Your task to perform on an android device: Show the shopping cart on ebay.com. Add "apple airpods pro" to the cart on ebay.com Image 0: 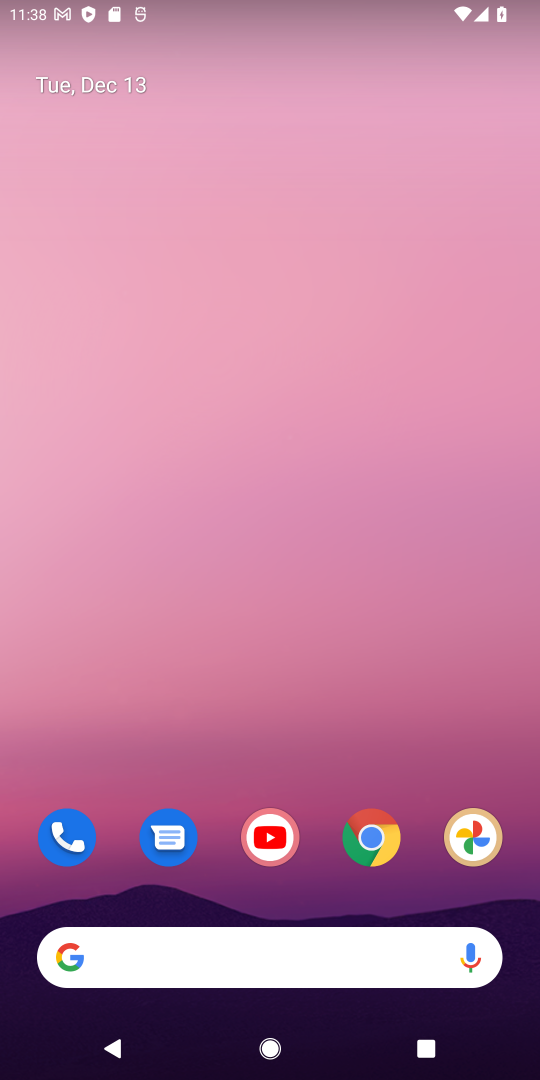
Step 0: click (381, 866)
Your task to perform on an android device: Show the shopping cart on ebay.com. Add "apple airpods pro" to the cart on ebay.com Image 1: 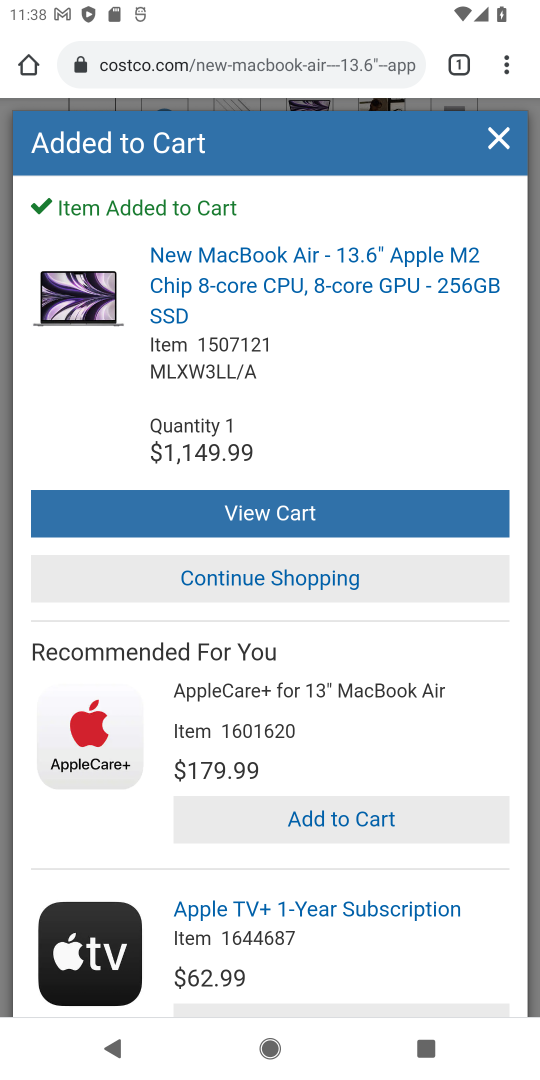
Step 1: click (195, 68)
Your task to perform on an android device: Show the shopping cart on ebay.com. Add "apple airpods pro" to the cart on ebay.com Image 2: 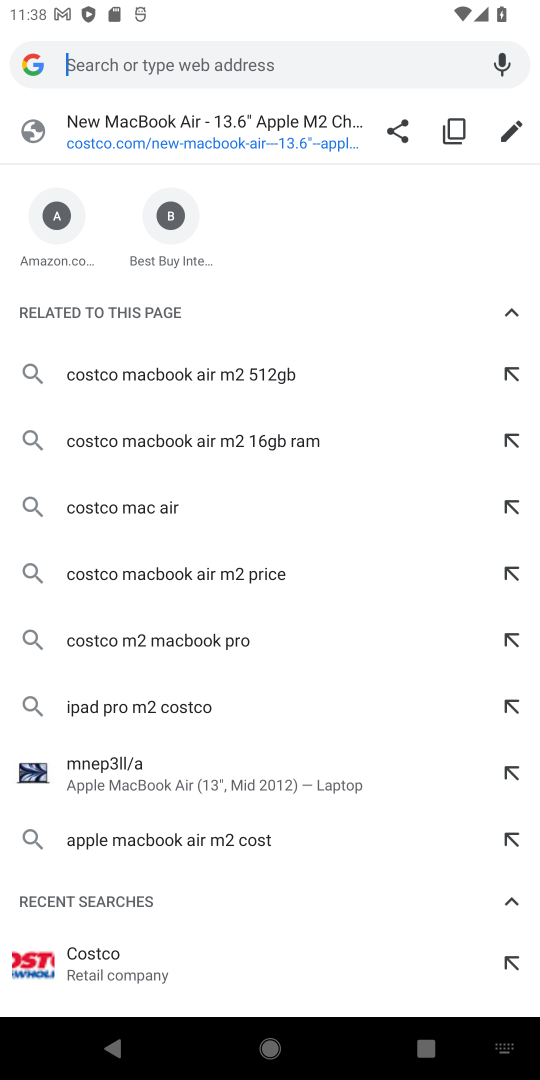
Step 2: type "apple airpod"
Your task to perform on an android device: Show the shopping cart on ebay.com. Add "apple airpods pro" to the cart on ebay.com Image 3: 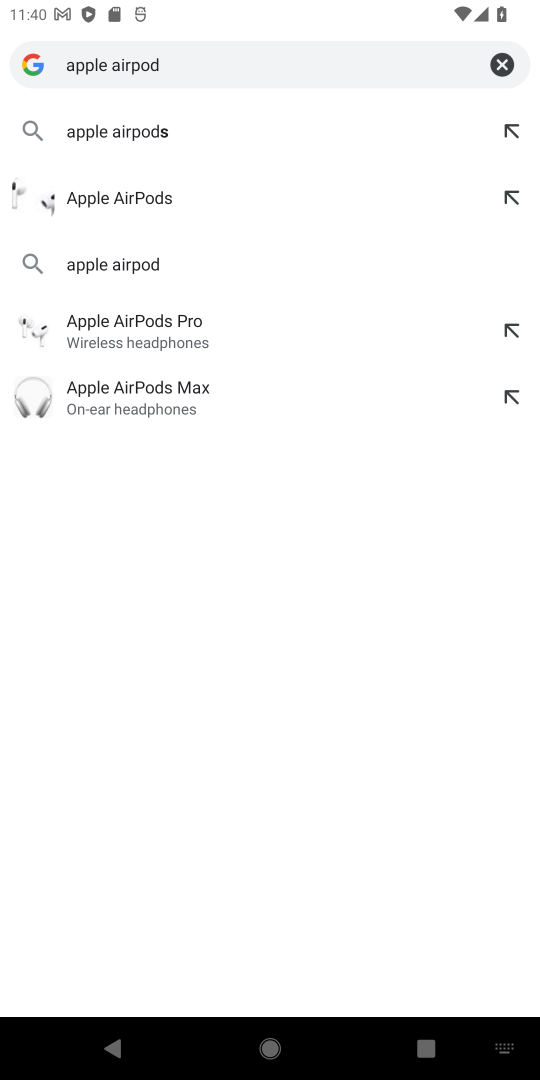
Step 3: click (167, 125)
Your task to perform on an android device: Show the shopping cart on ebay.com. Add "apple airpods pro" to the cart on ebay.com Image 4: 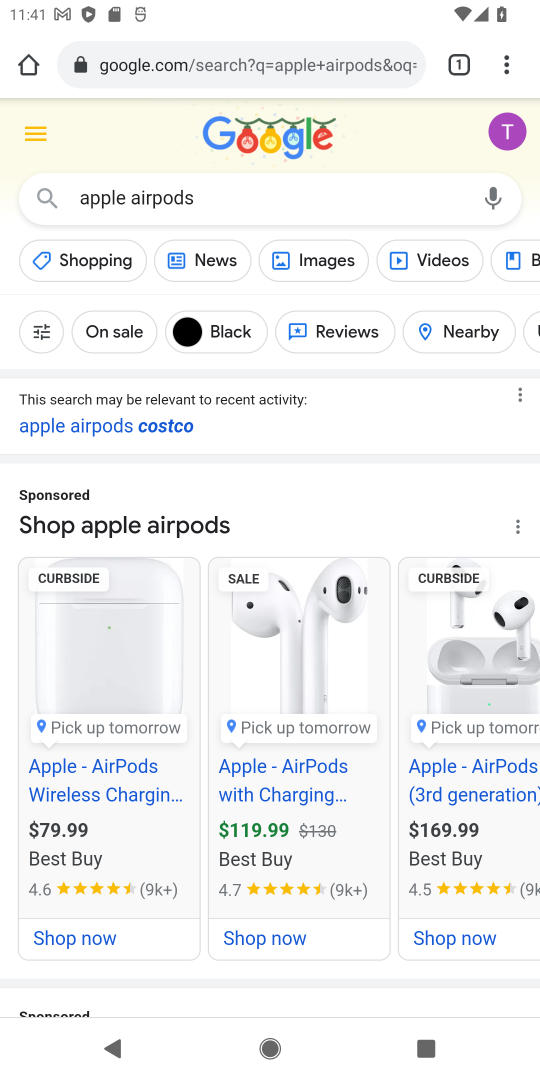
Step 4: drag from (417, 795) to (12, 765)
Your task to perform on an android device: Show the shopping cart on ebay.com. Add "apple airpods pro" to the cart on ebay.com Image 5: 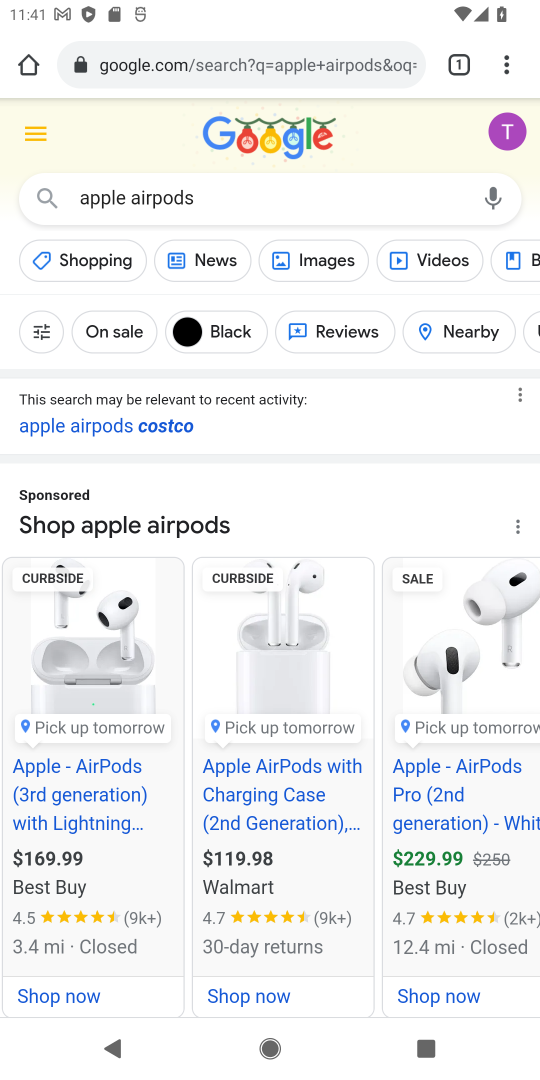
Step 5: drag from (383, 807) to (0, 804)
Your task to perform on an android device: Show the shopping cart on ebay.com. Add "apple airpods pro" to the cart on ebay.com Image 6: 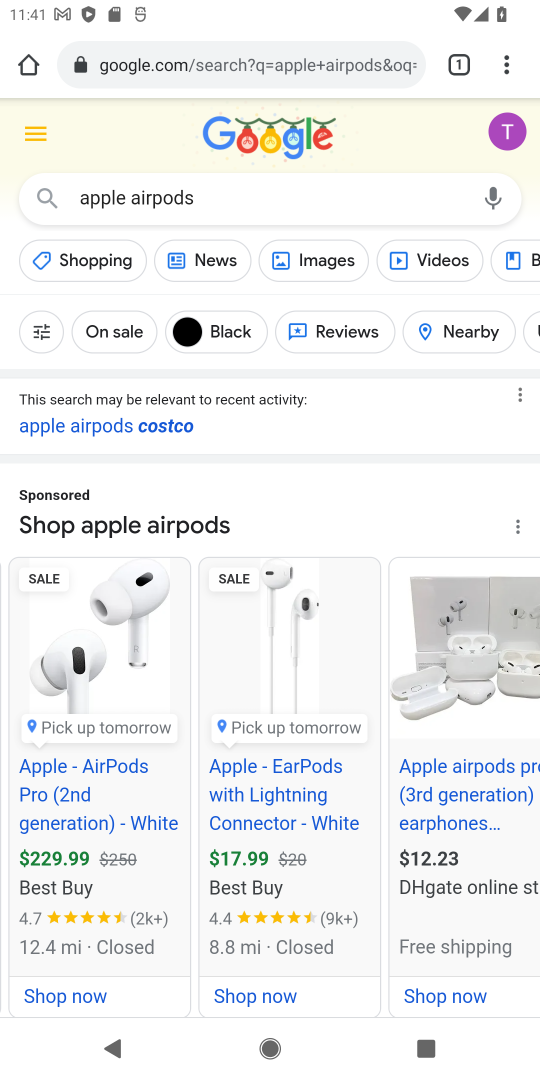
Step 6: drag from (409, 825) to (7, 886)
Your task to perform on an android device: Show the shopping cart on ebay.com. Add "apple airpods pro" to the cart on ebay.com Image 7: 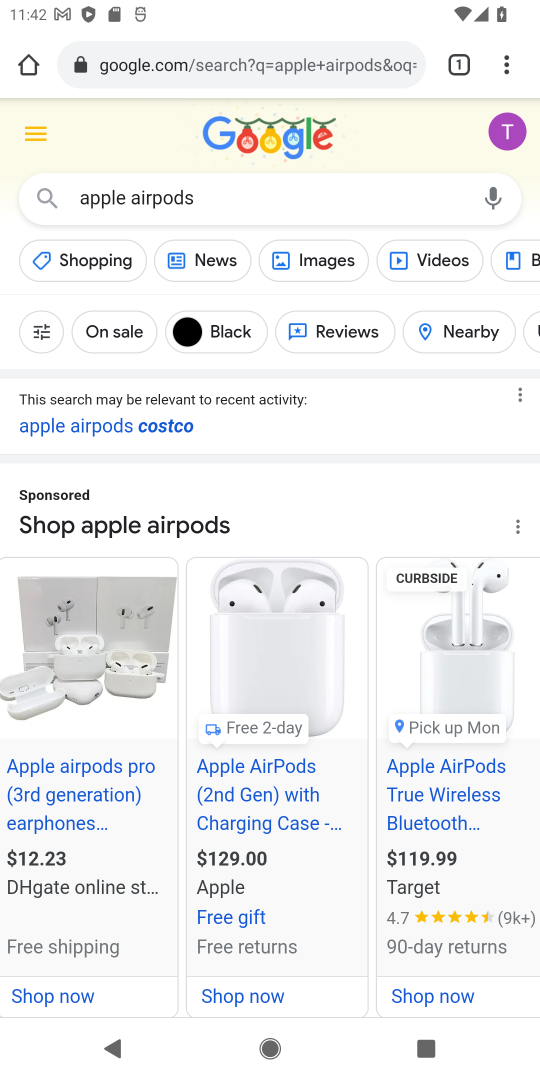
Step 7: drag from (433, 855) to (11, 908)
Your task to perform on an android device: Show the shopping cart on ebay.com. Add "apple airpods pro" to the cart on ebay.com Image 8: 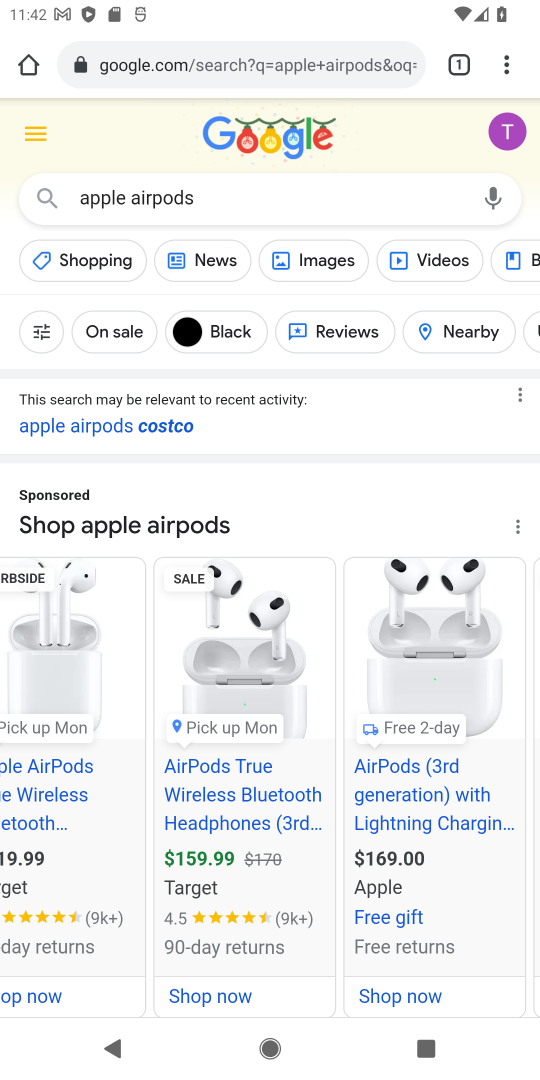
Step 8: drag from (463, 869) to (110, 892)
Your task to perform on an android device: Show the shopping cart on ebay.com. Add "apple airpods pro" to the cart on ebay.com Image 9: 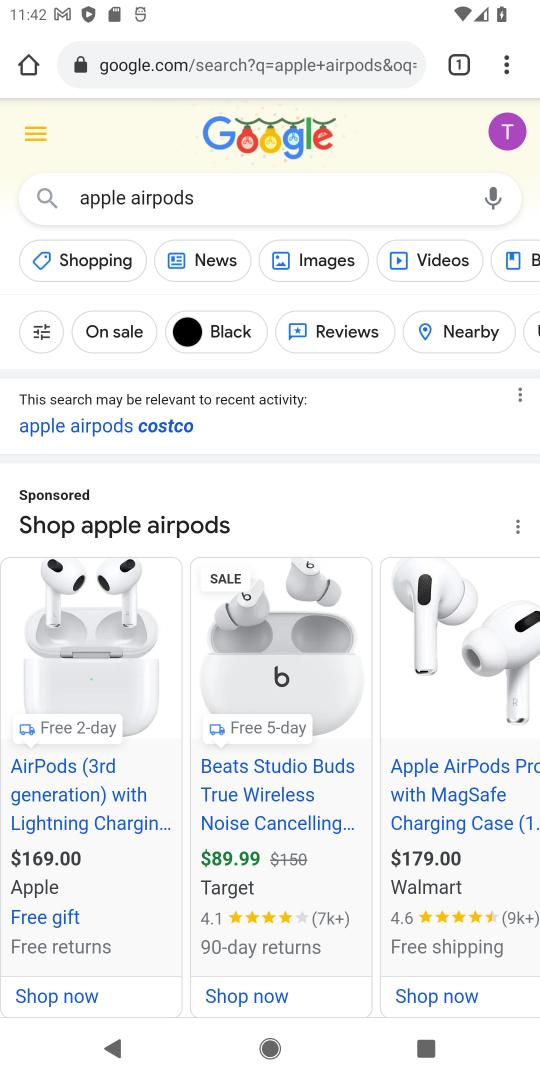
Step 9: drag from (430, 818) to (0, 811)
Your task to perform on an android device: Show the shopping cart on ebay.com. Add "apple airpods pro" to the cart on ebay.com Image 10: 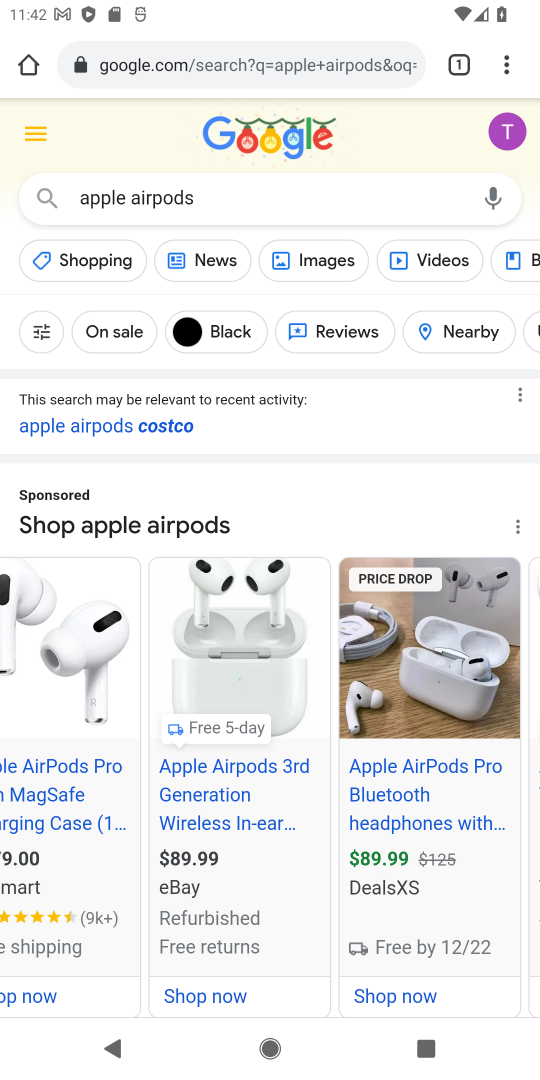
Step 10: click (150, 803)
Your task to perform on an android device: Show the shopping cart on ebay.com. Add "apple airpods pro" to the cart on ebay.com Image 11: 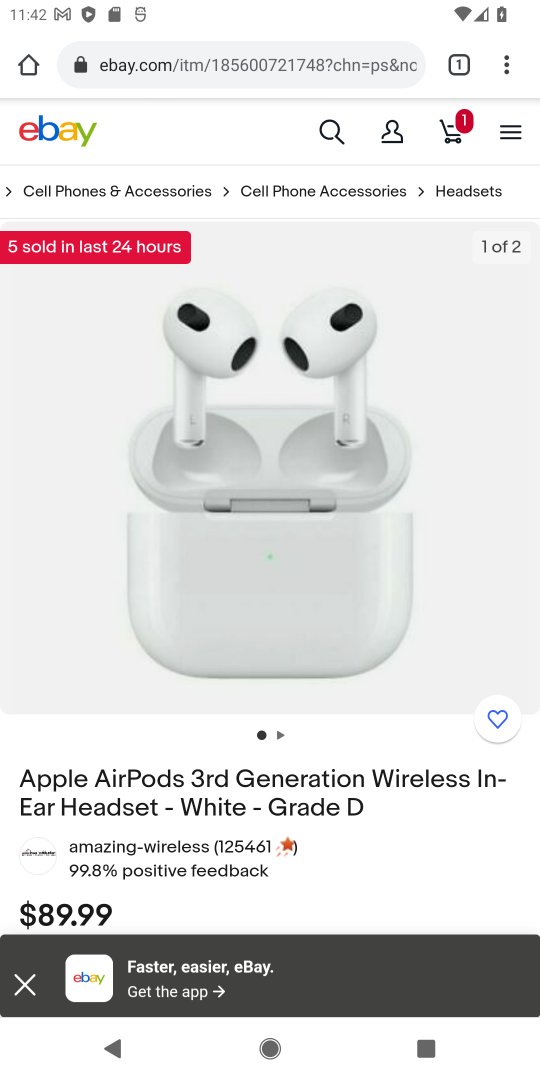
Step 11: drag from (250, 875) to (353, 193)
Your task to perform on an android device: Show the shopping cart on ebay.com. Add "apple airpods pro" to the cart on ebay.com Image 12: 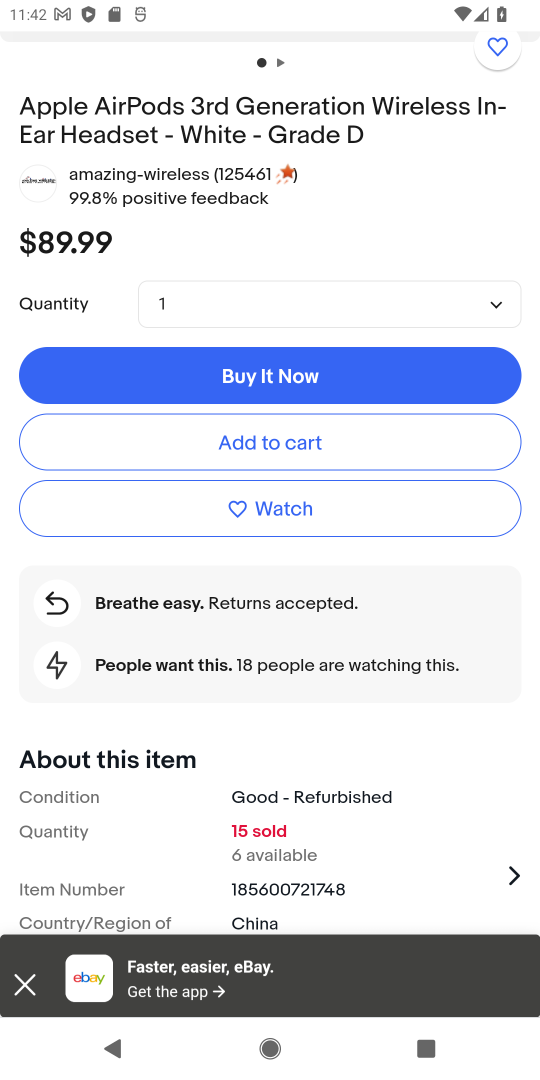
Step 12: click (386, 433)
Your task to perform on an android device: Show the shopping cart on ebay.com. Add "apple airpods pro" to the cart on ebay.com Image 13: 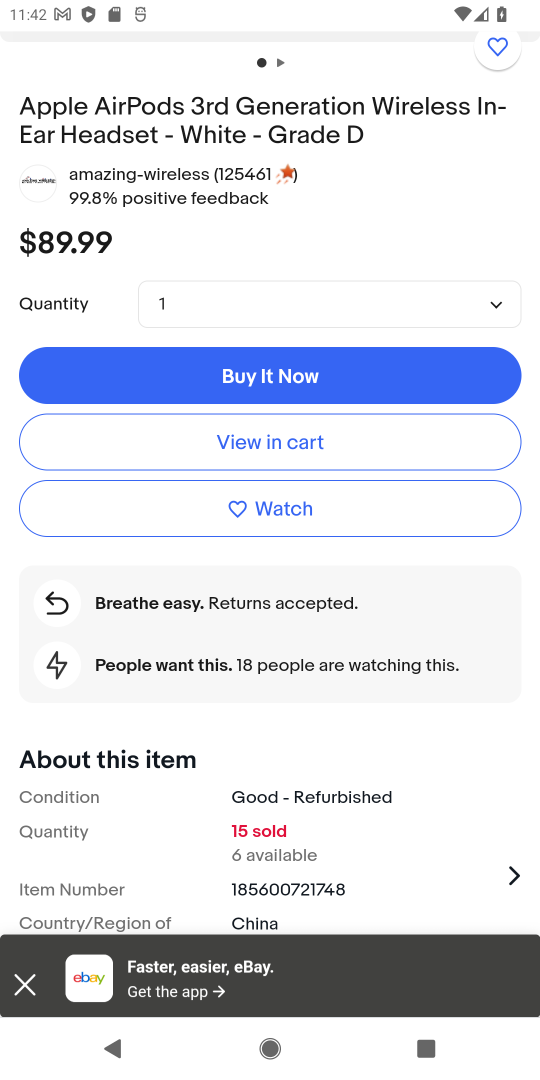
Step 13: task complete